Your task to perform on an android device: Clear the cart on amazon.com. Add dell alienware to the cart on amazon.com, then select checkout. Image 0: 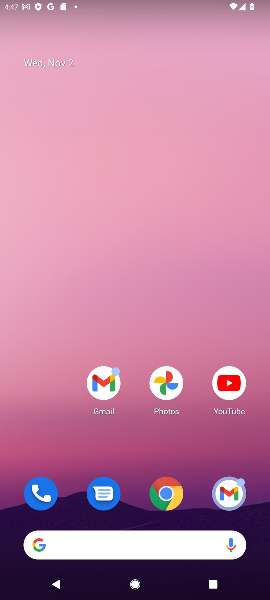
Step 0: drag from (133, 492) to (95, 64)
Your task to perform on an android device: Clear the cart on amazon.com. Add dell alienware to the cart on amazon.com, then select checkout. Image 1: 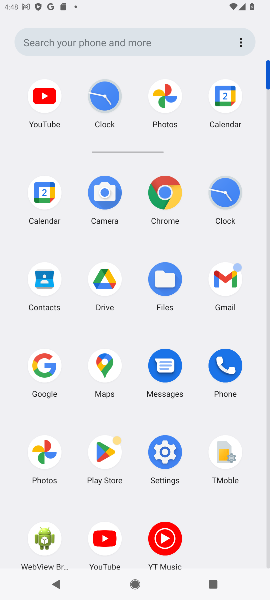
Step 1: click (40, 365)
Your task to perform on an android device: Clear the cart on amazon.com. Add dell alienware to the cart on amazon.com, then select checkout. Image 2: 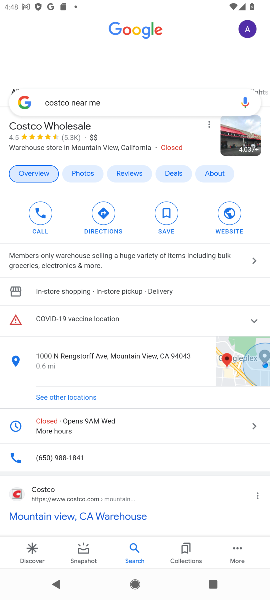
Step 2: click (124, 95)
Your task to perform on an android device: Clear the cart on amazon.com. Add dell alienware to the cart on amazon.com, then select checkout. Image 3: 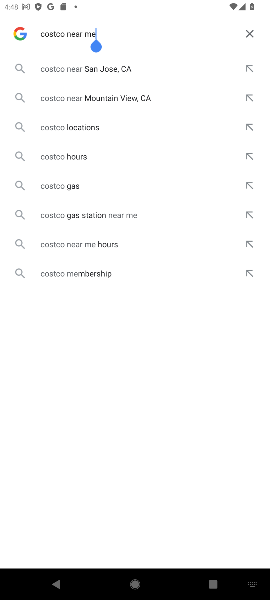
Step 3: click (251, 30)
Your task to perform on an android device: Clear the cart on amazon.com. Add dell alienware to the cart on amazon.com, then select checkout. Image 4: 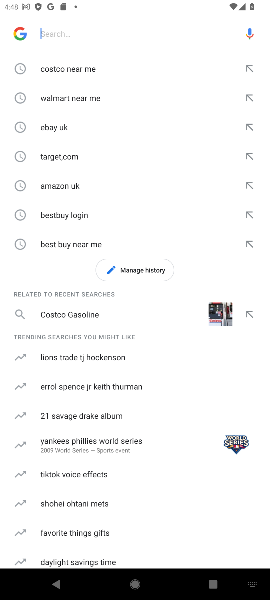
Step 4: click (78, 21)
Your task to perform on an android device: Clear the cart on amazon.com. Add dell alienware to the cart on amazon.com, then select checkout. Image 5: 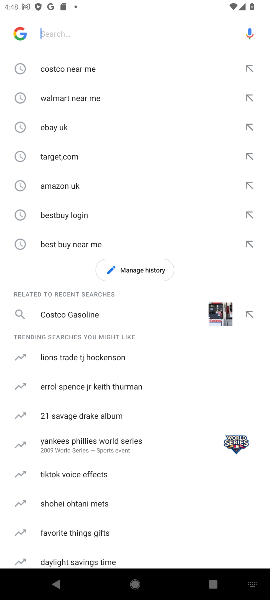
Step 5: click (72, 31)
Your task to perform on an android device: Clear the cart on amazon.com. Add dell alienware to the cart on amazon.com, then select checkout. Image 6: 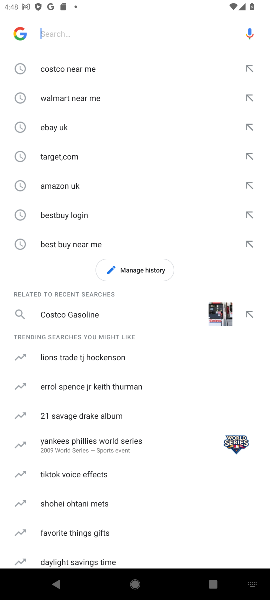
Step 6: type "amazon "
Your task to perform on an android device: Clear the cart on amazon.com. Add dell alienware to the cart on amazon.com, then select checkout. Image 7: 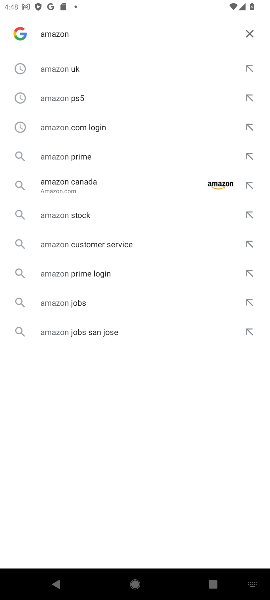
Step 7: click (50, 65)
Your task to perform on an android device: Clear the cart on amazon.com. Add dell alienware to the cart on amazon.com, then select checkout. Image 8: 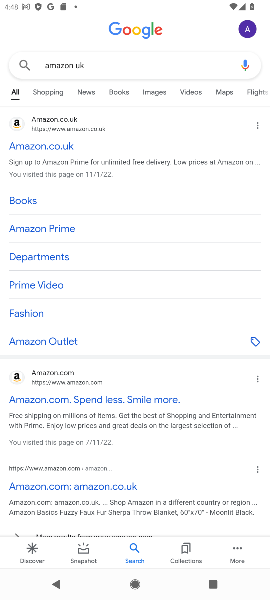
Step 8: click (53, 149)
Your task to perform on an android device: Clear the cart on amazon.com. Add dell alienware to the cart on amazon.com, then select checkout. Image 9: 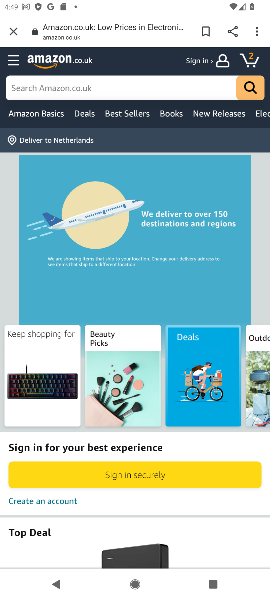
Step 9: click (40, 80)
Your task to perform on an android device: Clear the cart on amazon.com. Add dell alienware to the cart on amazon.com, then select checkout. Image 10: 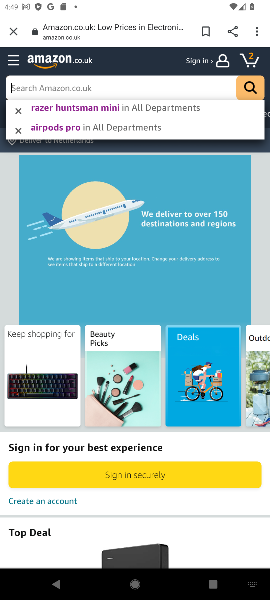
Step 10: click (40, 80)
Your task to perform on an android device: Clear the cart on amazon.com. Add dell alienware to the cart on amazon.com, then select checkout. Image 11: 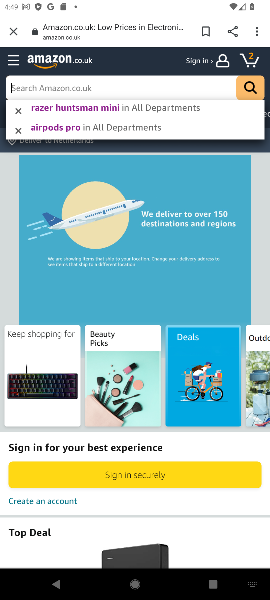
Step 11: type "dell alienware  "
Your task to perform on an android device: Clear the cart on amazon.com. Add dell alienware to the cart on amazon.com, then select checkout. Image 12: 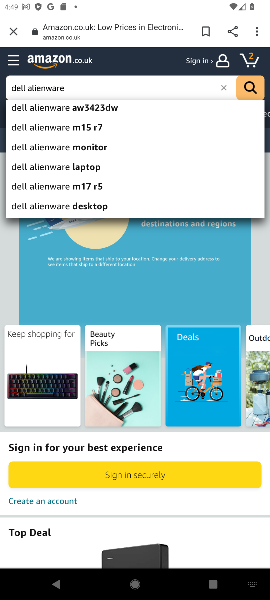
Step 12: click (66, 109)
Your task to perform on an android device: Clear the cart on amazon.com. Add dell alienware to the cart on amazon.com, then select checkout. Image 13: 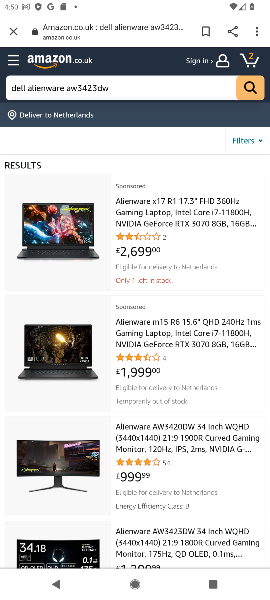
Step 13: click (135, 202)
Your task to perform on an android device: Clear the cart on amazon.com. Add dell alienware to the cart on amazon.com, then select checkout. Image 14: 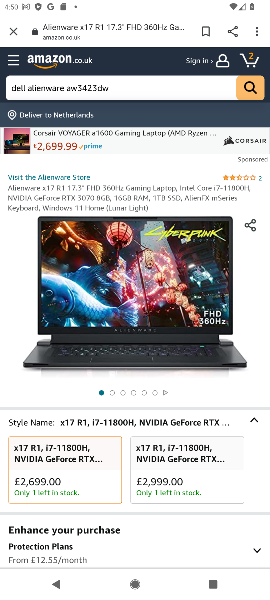
Step 14: drag from (81, 444) to (80, 214)
Your task to perform on an android device: Clear the cart on amazon.com. Add dell alienware to the cart on amazon.com, then select checkout. Image 15: 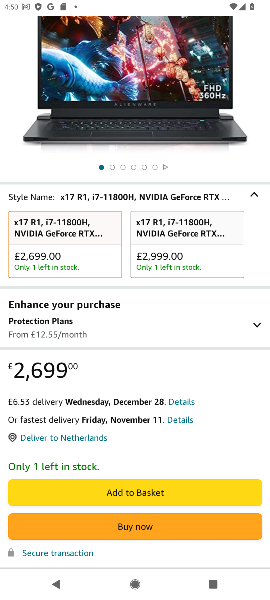
Step 15: click (141, 486)
Your task to perform on an android device: Clear the cart on amazon.com. Add dell alienware to the cart on amazon.com, then select checkout. Image 16: 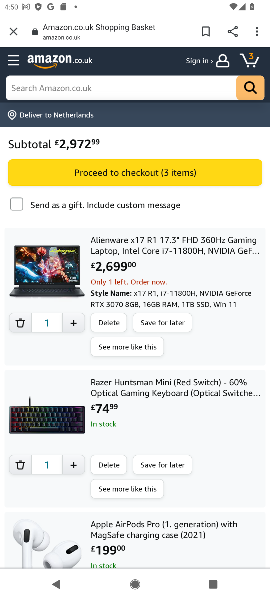
Step 16: task complete